Your task to perform on an android device: turn off wifi Image 0: 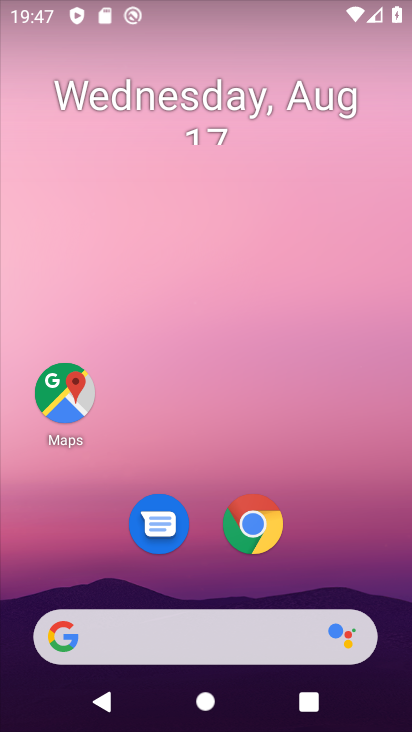
Step 0: drag from (313, 553) to (311, 49)
Your task to perform on an android device: turn off wifi Image 1: 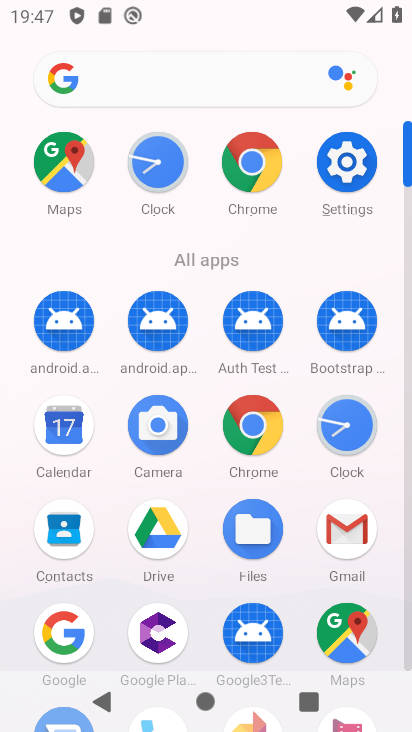
Step 1: click (348, 165)
Your task to perform on an android device: turn off wifi Image 2: 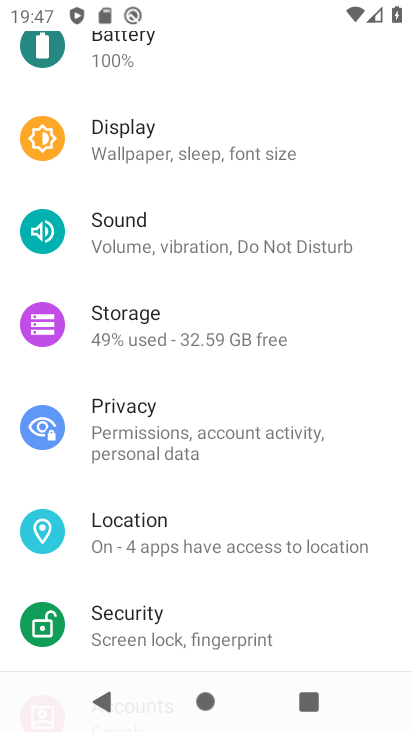
Step 2: drag from (239, 247) to (218, 542)
Your task to perform on an android device: turn off wifi Image 3: 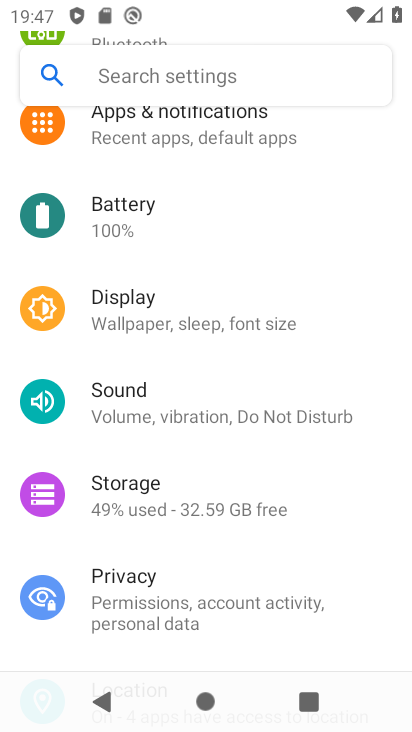
Step 3: drag from (225, 286) to (242, 617)
Your task to perform on an android device: turn off wifi Image 4: 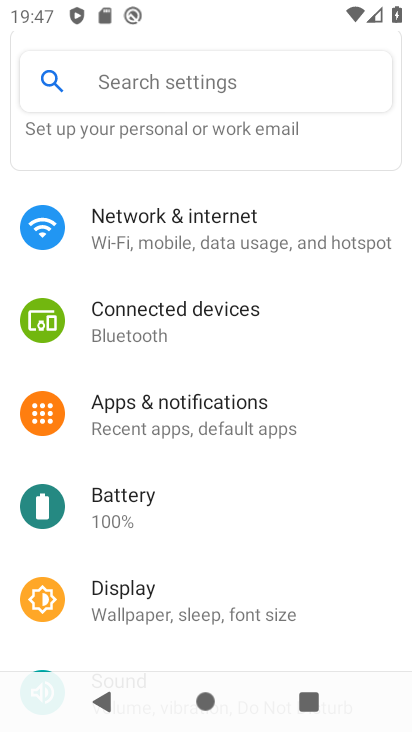
Step 4: click (237, 233)
Your task to perform on an android device: turn off wifi Image 5: 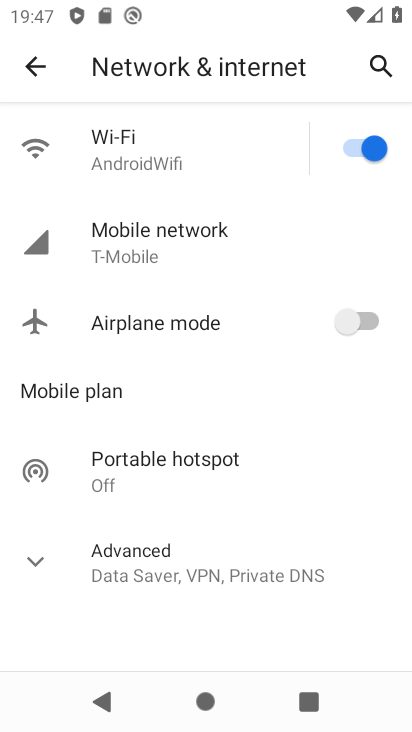
Step 5: click (359, 147)
Your task to perform on an android device: turn off wifi Image 6: 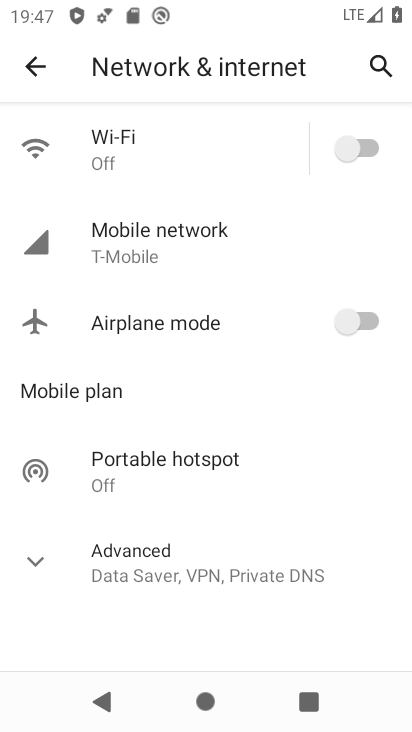
Step 6: task complete